Your task to perform on an android device: check battery use Image 0: 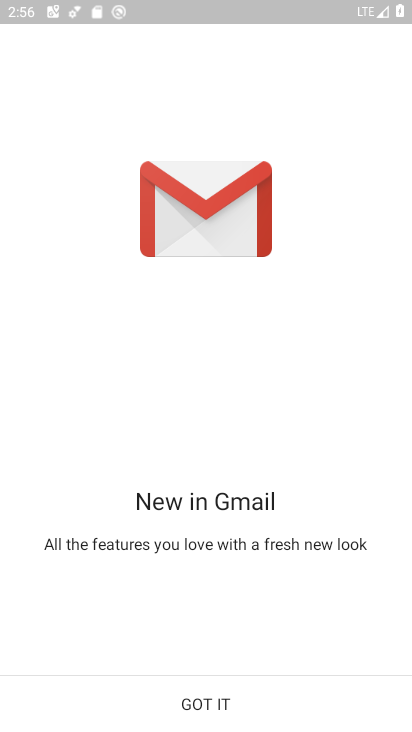
Step 0: press home button
Your task to perform on an android device: check battery use Image 1: 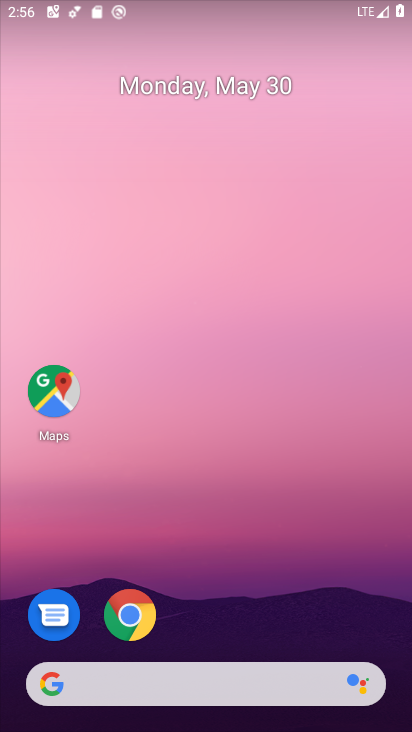
Step 1: drag from (232, 619) to (299, 5)
Your task to perform on an android device: check battery use Image 2: 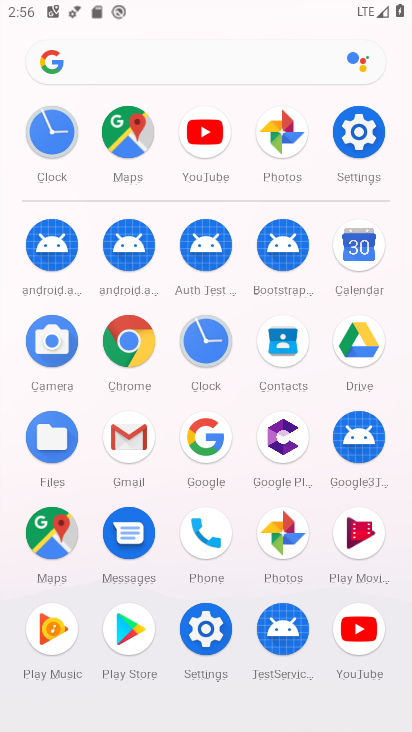
Step 2: click (356, 128)
Your task to perform on an android device: check battery use Image 3: 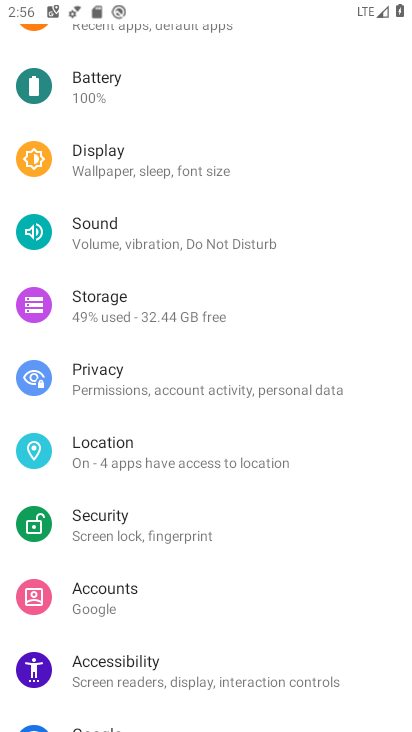
Step 3: drag from (254, 284) to (217, 541)
Your task to perform on an android device: check battery use Image 4: 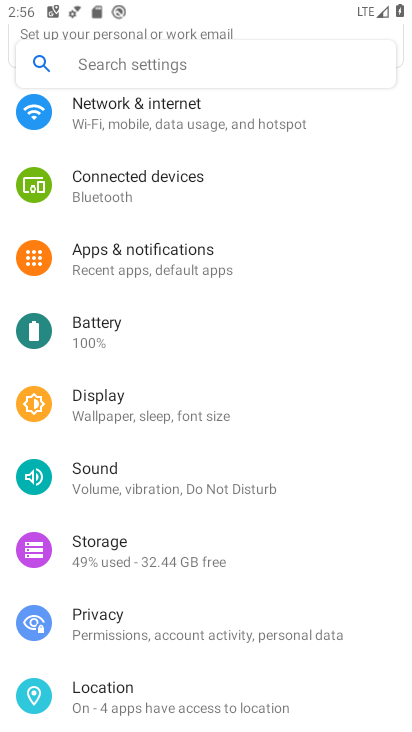
Step 4: click (179, 331)
Your task to perform on an android device: check battery use Image 5: 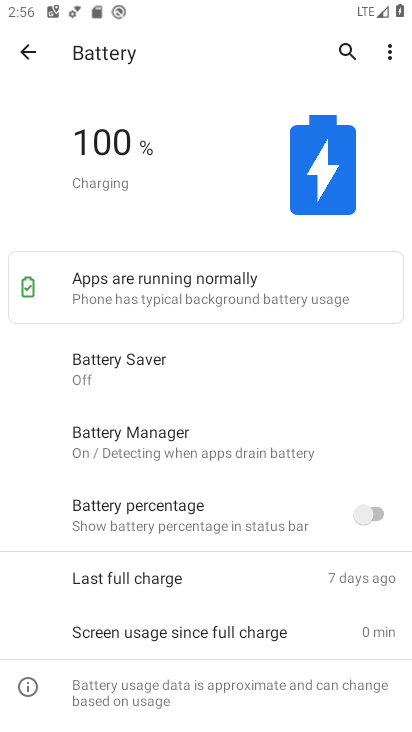
Step 5: task complete